Your task to perform on an android device: create a new album in the google photos Image 0: 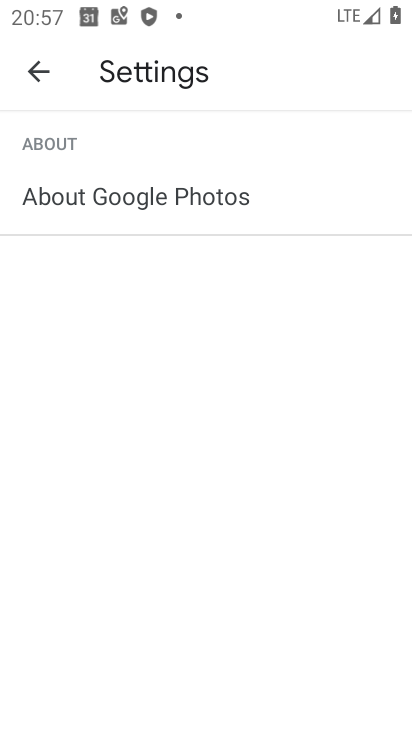
Step 0: press home button
Your task to perform on an android device: create a new album in the google photos Image 1: 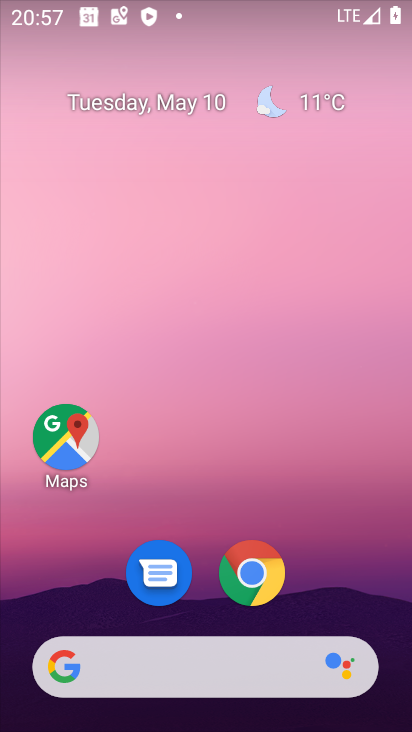
Step 1: drag from (348, 620) to (281, 4)
Your task to perform on an android device: create a new album in the google photos Image 2: 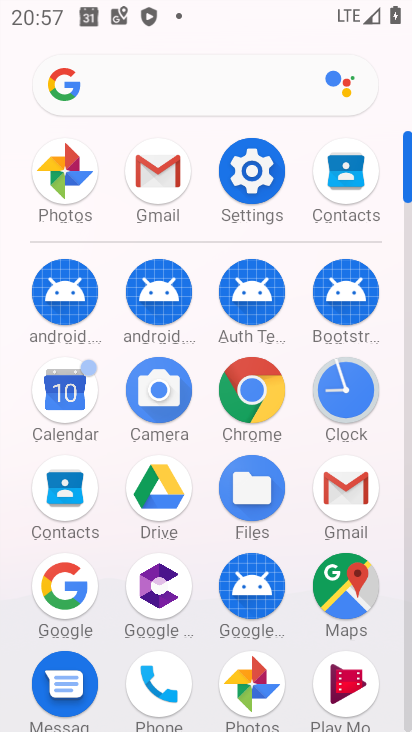
Step 2: click (53, 167)
Your task to perform on an android device: create a new album in the google photos Image 3: 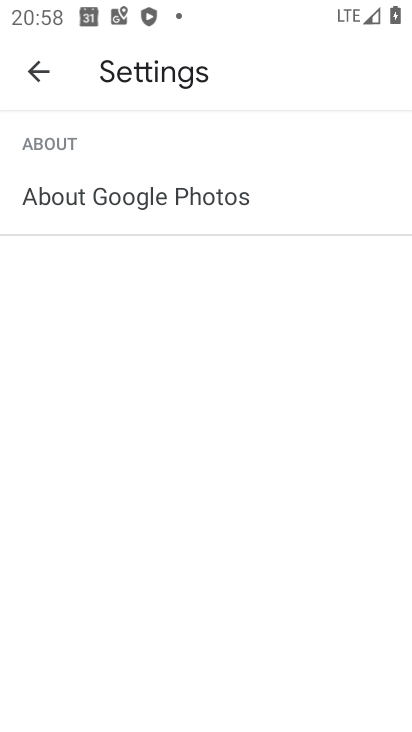
Step 3: click (36, 82)
Your task to perform on an android device: create a new album in the google photos Image 4: 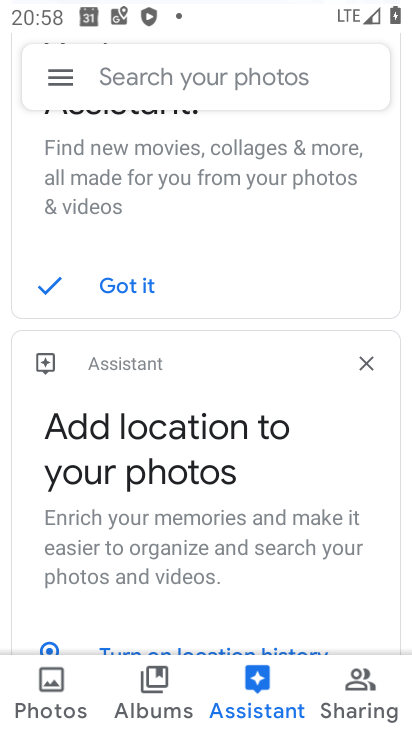
Step 4: click (52, 71)
Your task to perform on an android device: create a new album in the google photos Image 5: 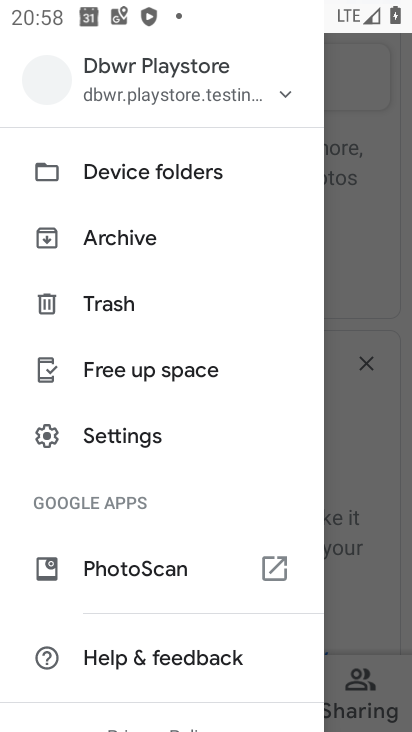
Step 5: click (402, 471)
Your task to perform on an android device: create a new album in the google photos Image 6: 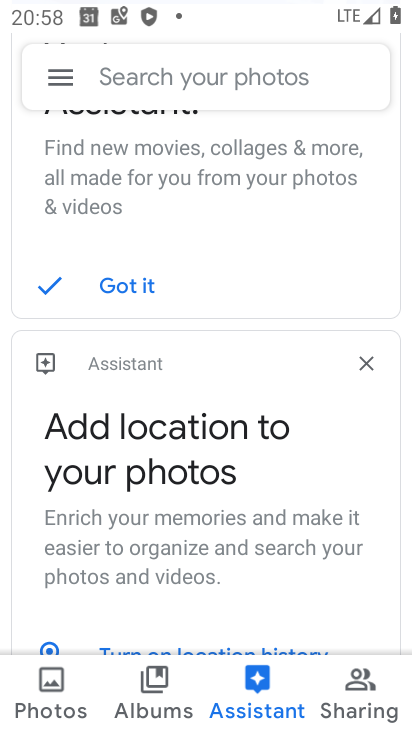
Step 6: click (48, 687)
Your task to perform on an android device: create a new album in the google photos Image 7: 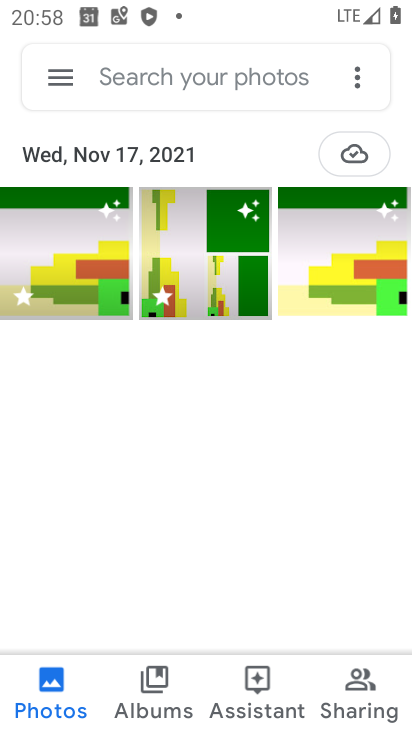
Step 7: click (45, 255)
Your task to perform on an android device: create a new album in the google photos Image 8: 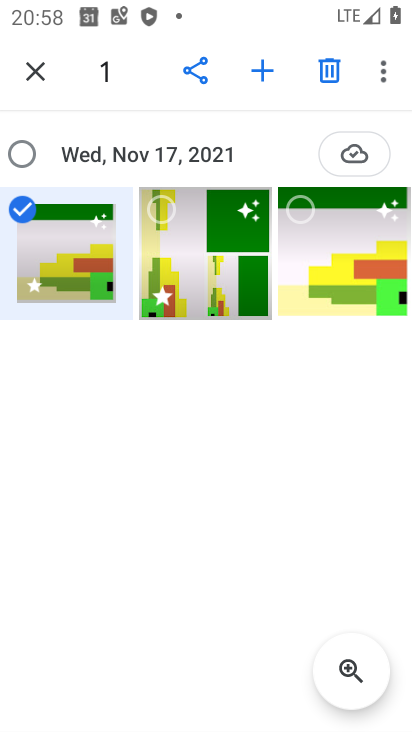
Step 8: click (260, 82)
Your task to perform on an android device: create a new album in the google photos Image 9: 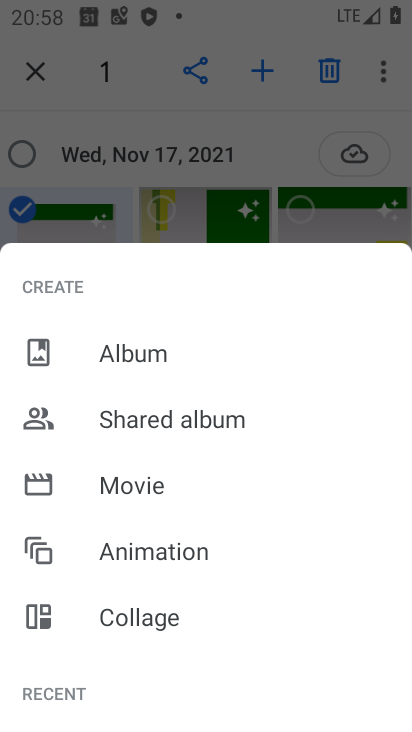
Step 9: click (116, 364)
Your task to perform on an android device: create a new album in the google photos Image 10: 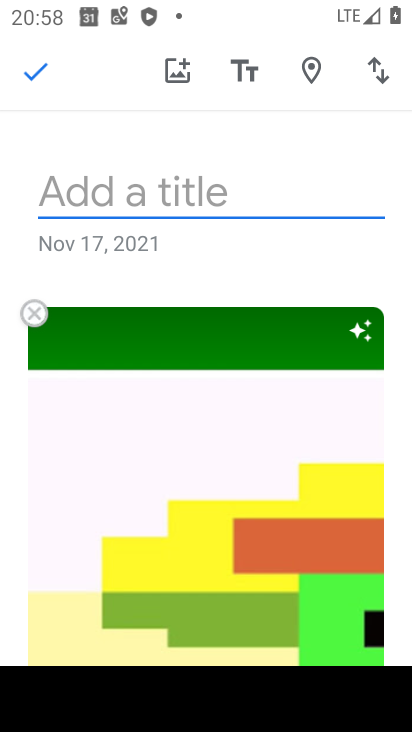
Step 10: click (104, 199)
Your task to perform on an android device: create a new album in the google photos Image 11: 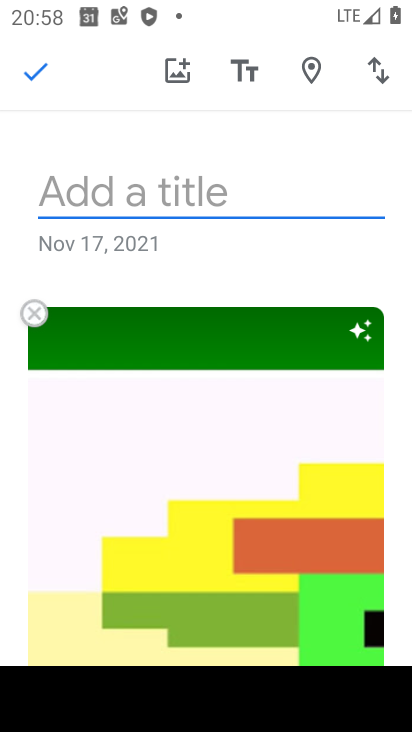
Step 11: type "new 1"
Your task to perform on an android device: create a new album in the google photos Image 12: 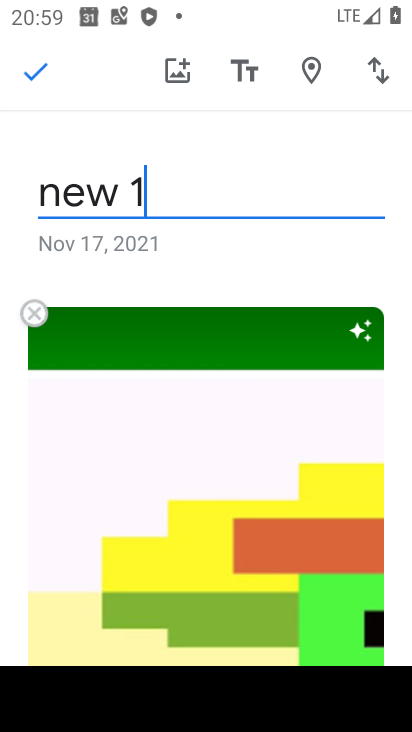
Step 12: click (36, 70)
Your task to perform on an android device: create a new album in the google photos Image 13: 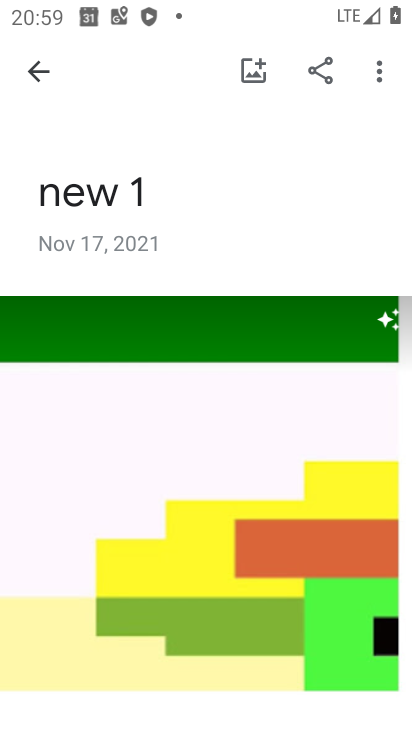
Step 13: task complete